Your task to perform on an android device: Go to ESPN.com Image 0: 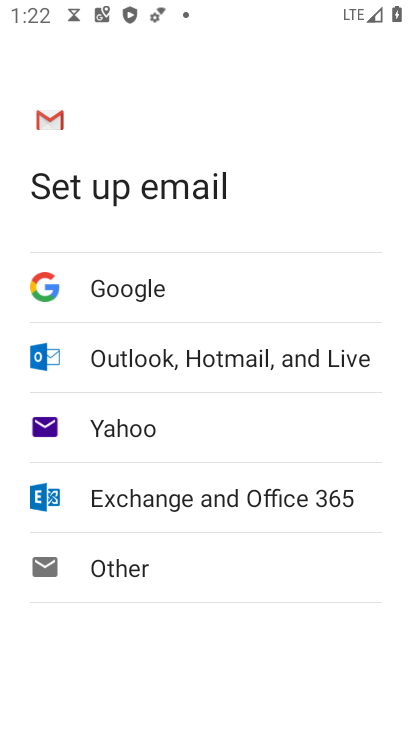
Step 0: press home button
Your task to perform on an android device: Go to ESPN.com Image 1: 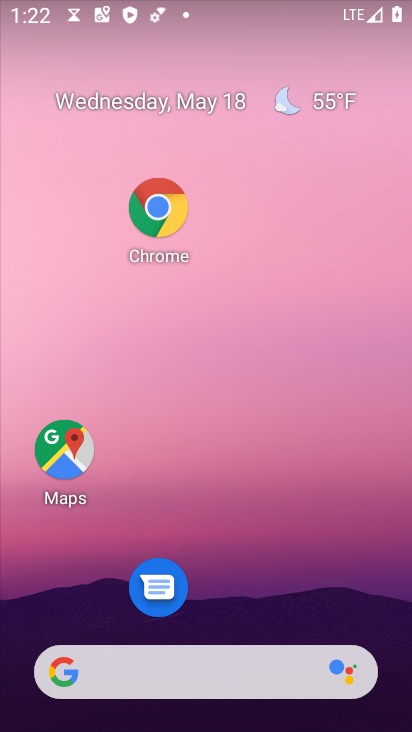
Step 1: click (167, 226)
Your task to perform on an android device: Go to ESPN.com Image 2: 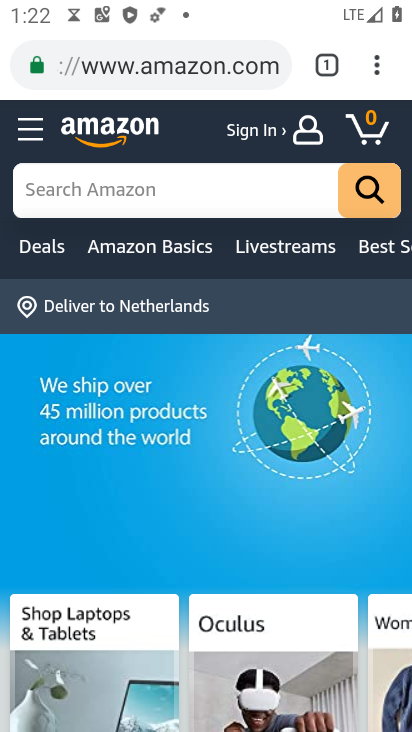
Step 2: press back button
Your task to perform on an android device: Go to ESPN.com Image 3: 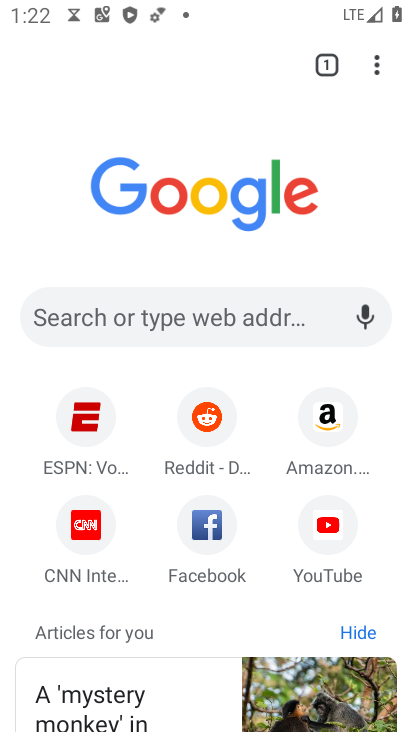
Step 3: click (86, 453)
Your task to perform on an android device: Go to ESPN.com Image 4: 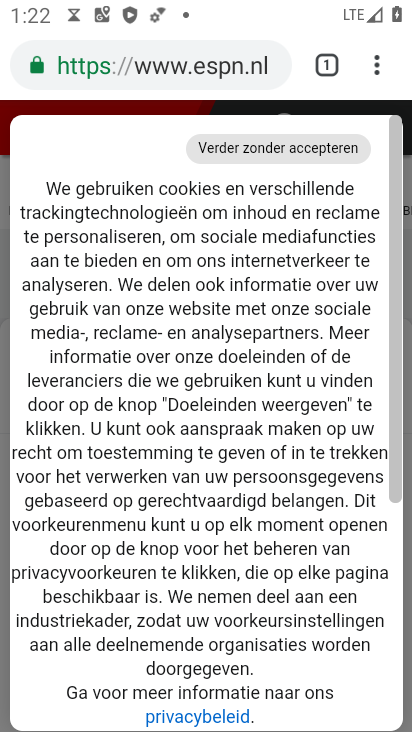
Step 4: task complete